Your task to perform on an android device: clear history in the chrome app Image 0: 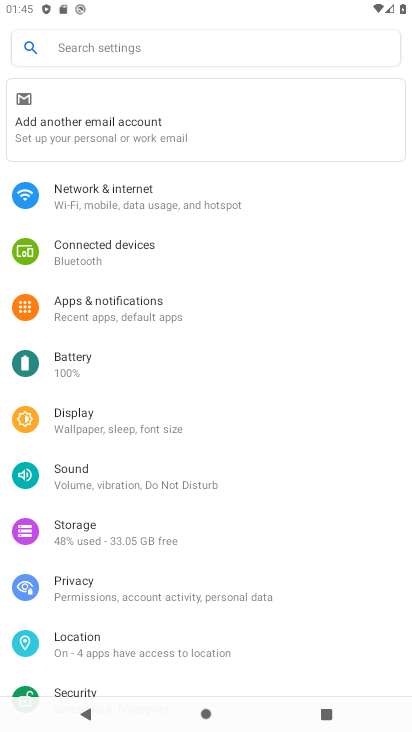
Step 0: press home button
Your task to perform on an android device: clear history in the chrome app Image 1: 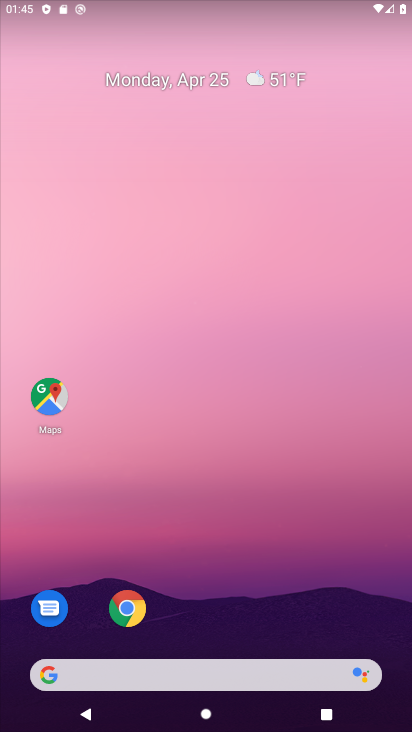
Step 1: click (131, 630)
Your task to perform on an android device: clear history in the chrome app Image 2: 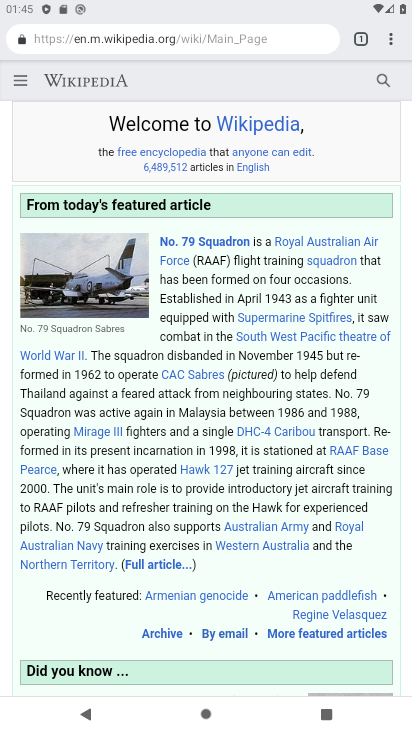
Step 2: click (391, 34)
Your task to perform on an android device: clear history in the chrome app Image 3: 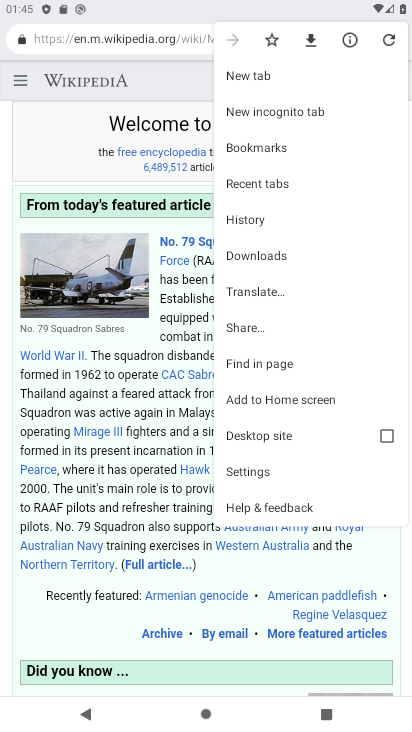
Step 3: click (232, 221)
Your task to perform on an android device: clear history in the chrome app Image 4: 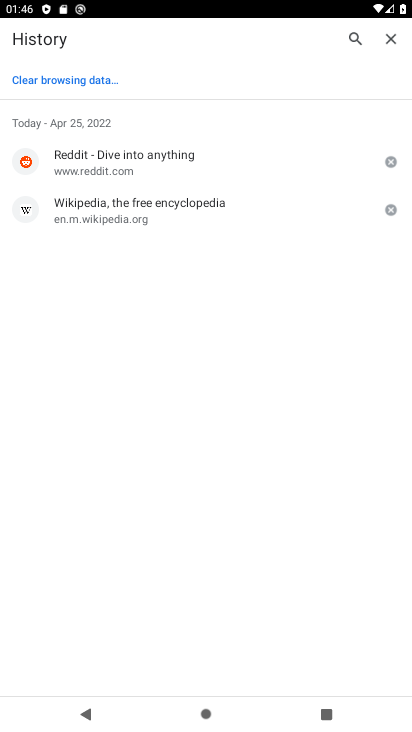
Step 4: click (73, 80)
Your task to perform on an android device: clear history in the chrome app Image 5: 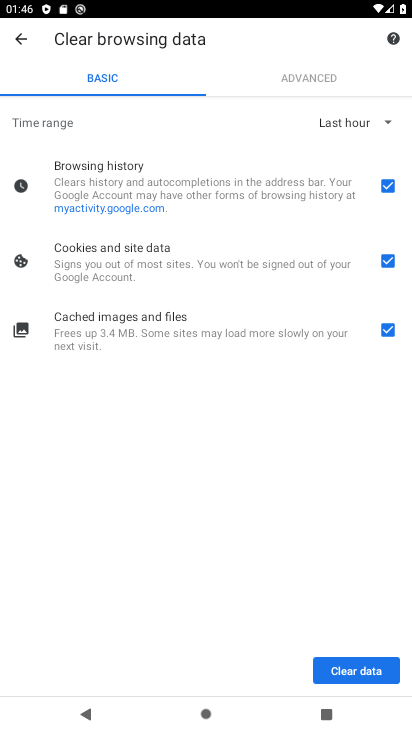
Step 5: click (357, 673)
Your task to perform on an android device: clear history in the chrome app Image 6: 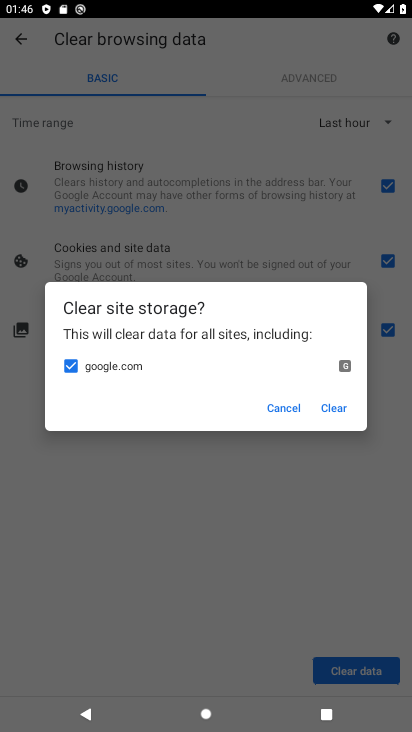
Step 6: click (326, 406)
Your task to perform on an android device: clear history in the chrome app Image 7: 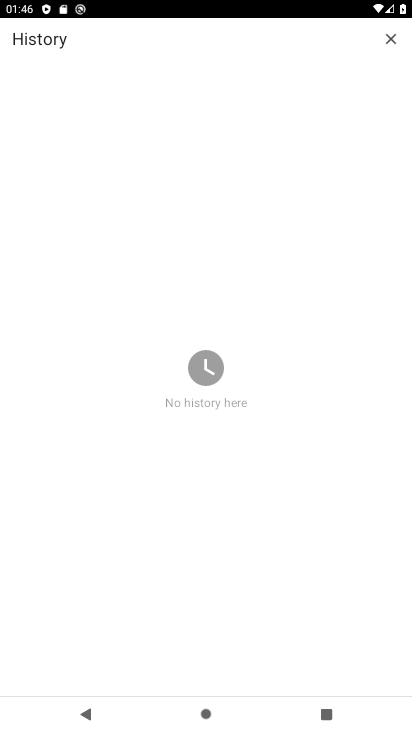
Step 7: task complete